Your task to perform on an android device: change alarm snooze length Image 0: 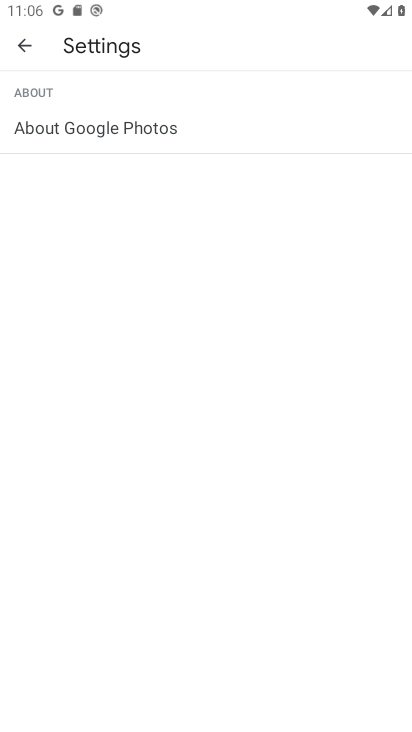
Step 0: press home button
Your task to perform on an android device: change alarm snooze length Image 1: 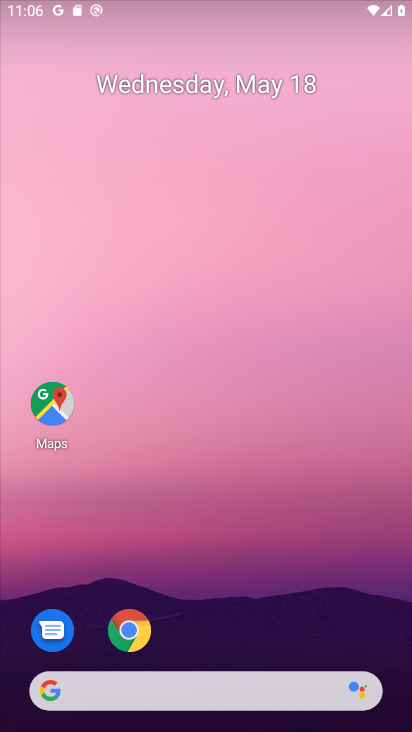
Step 1: drag from (241, 575) to (240, 236)
Your task to perform on an android device: change alarm snooze length Image 2: 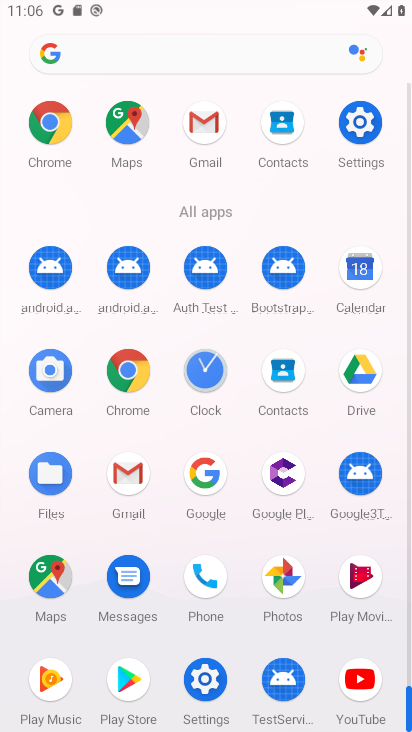
Step 2: click (197, 383)
Your task to perform on an android device: change alarm snooze length Image 3: 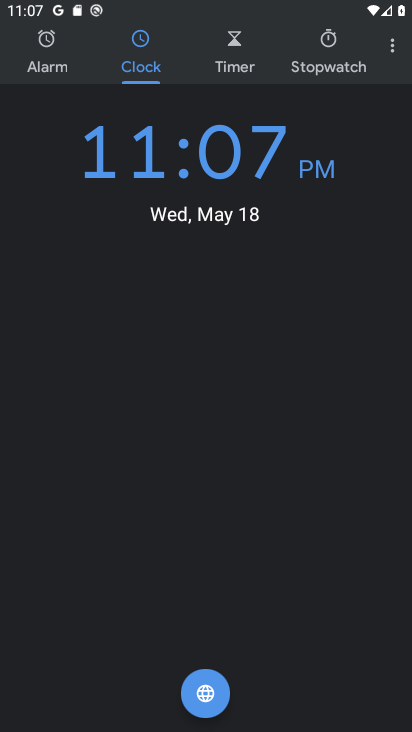
Step 3: click (393, 54)
Your task to perform on an android device: change alarm snooze length Image 4: 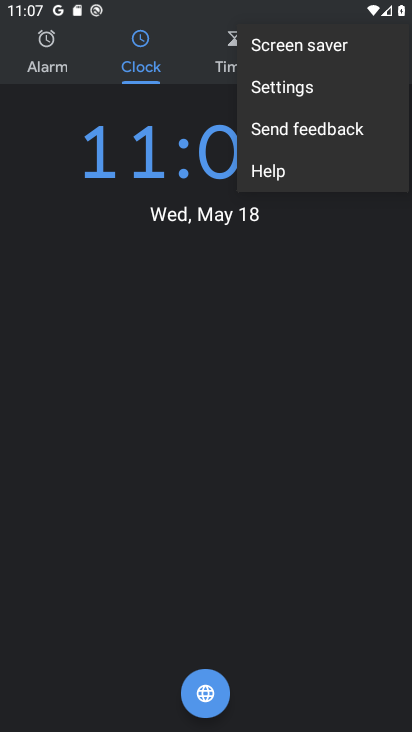
Step 4: click (286, 90)
Your task to perform on an android device: change alarm snooze length Image 5: 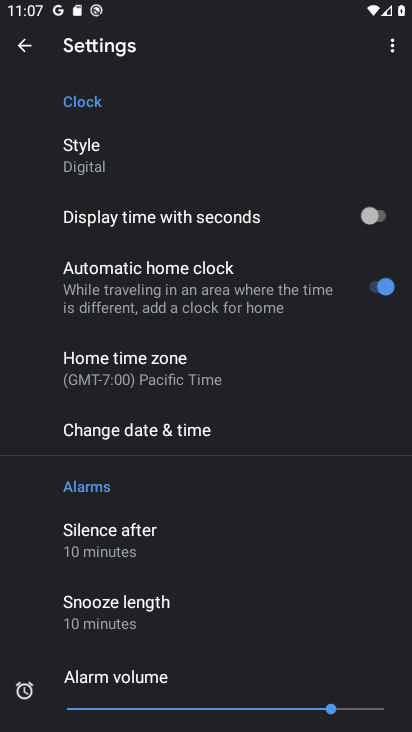
Step 5: click (166, 609)
Your task to perform on an android device: change alarm snooze length Image 6: 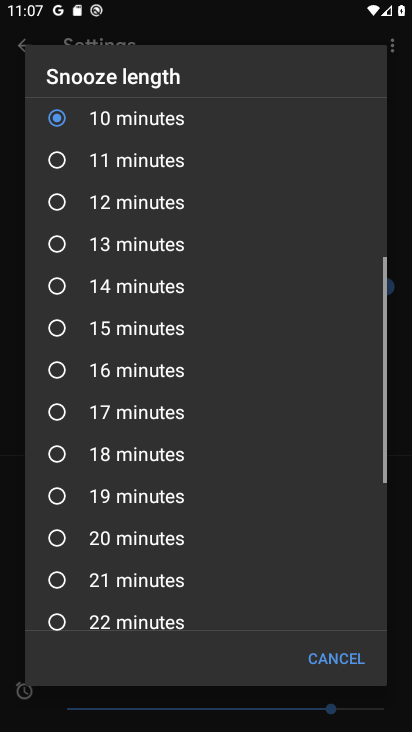
Step 6: click (174, 574)
Your task to perform on an android device: change alarm snooze length Image 7: 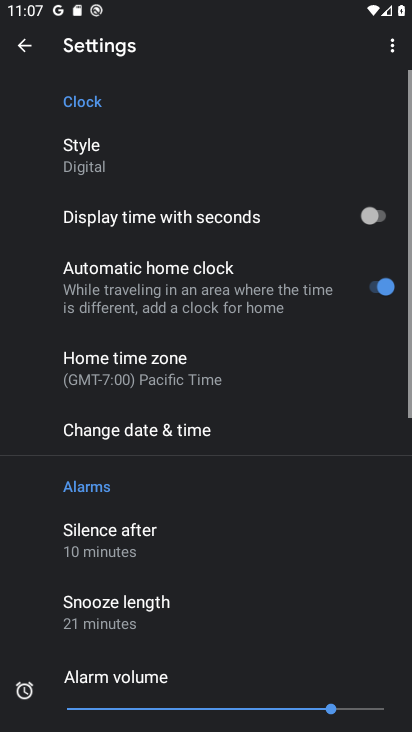
Step 7: task complete